Your task to perform on an android device: move a message to another label in the gmail app Image 0: 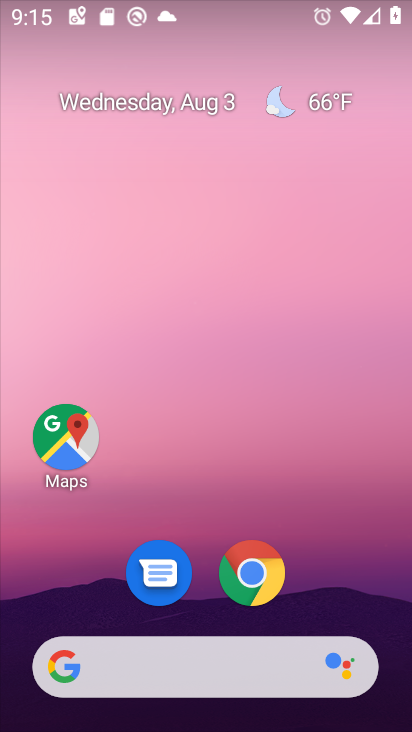
Step 0: drag from (346, 618) to (342, 35)
Your task to perform on an android device: move a message to another label in the gmail app Image 1: 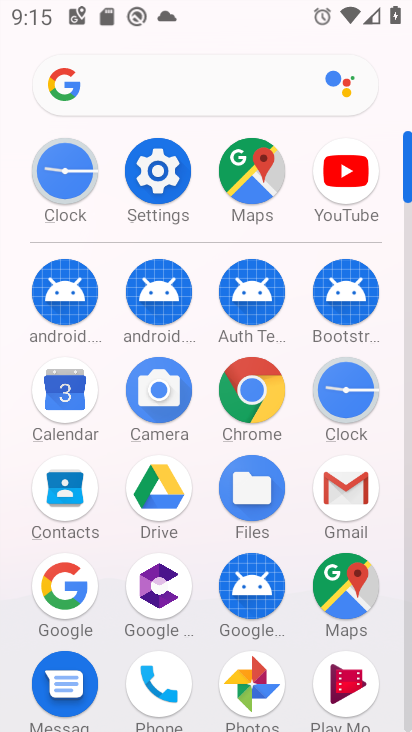
Step 1: click (348, 496)
Your task to perform on an android device: move a message to another label in the gmail app Image 2: 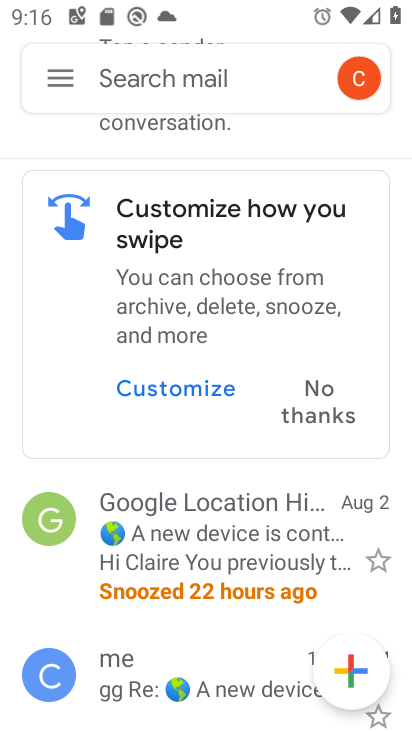
Step 2: drag from (196, 465) to (199, 570)
Your task to perform on an android device: move a message to another label in the gmail app Image 3: 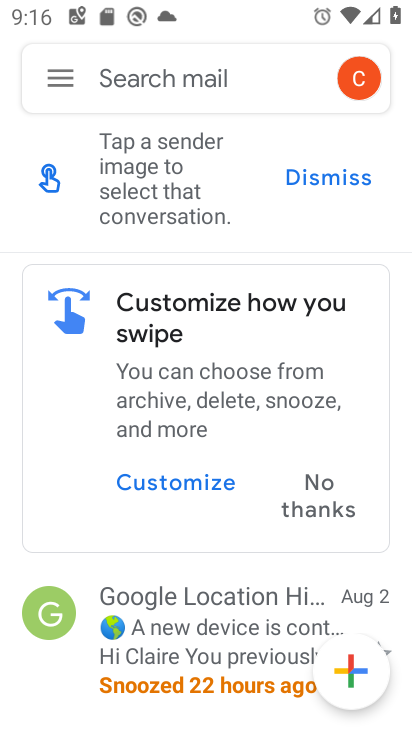
Step 3: drag from (209, 366) to (212, 545)
Your task to perform on an android device: move a message to another label in the gmail app Image 4: 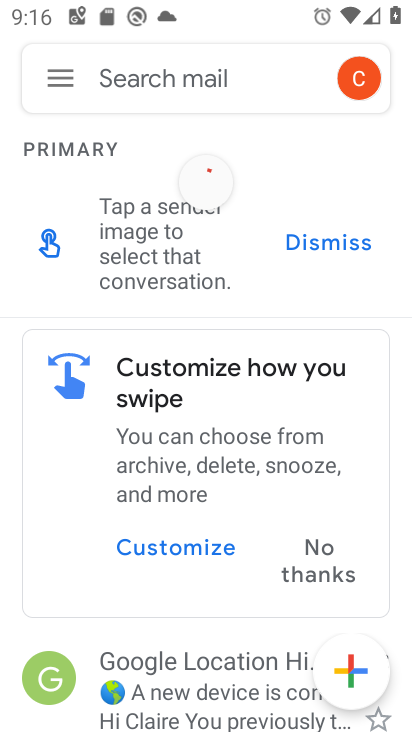
Step 4: drag from (210, 521) to (212, 256)
Your task to perform on an android device: move a message to another label in the gmail app Image 5: 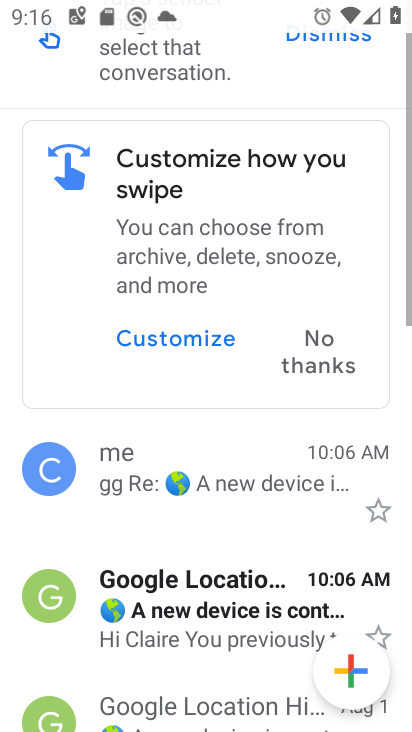
Step 5: drag from (211, 558) to (216, 379)
Your task to perform on an android device: move a message to another label in the gmail app Image 6: 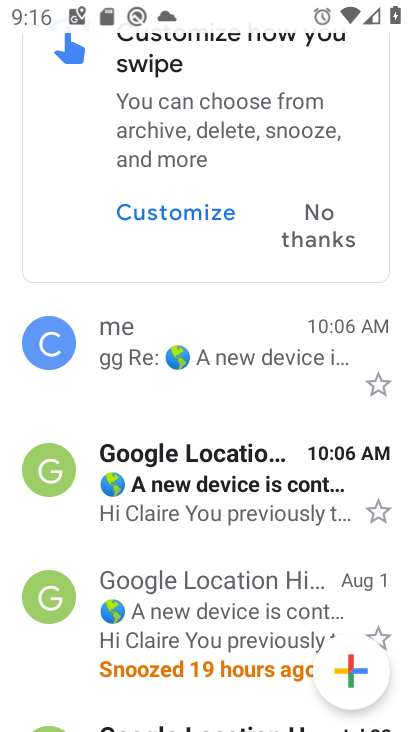
Step 6: click (217, 362)
Your task to perform on an android device: move a message to another label in the gmail app Image 7: 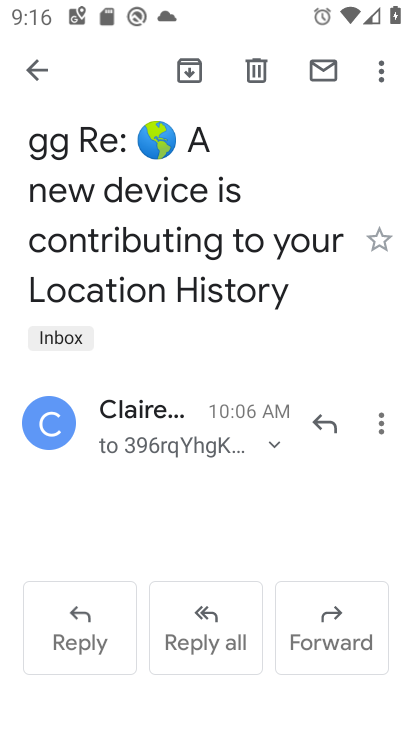
Step 7: click (386, 73)
Your task to perform on an android device: move a message to another label in the gmail app Image 8: 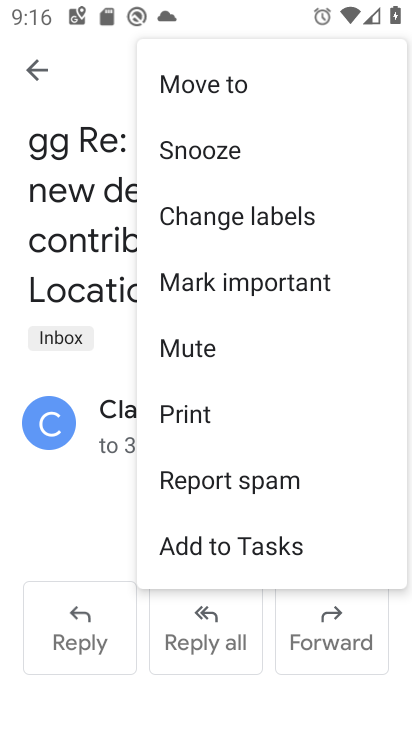
Step 8: click (249, 211)
Your task to perform on an android device: move a message to another label in the gmail app Image 9: 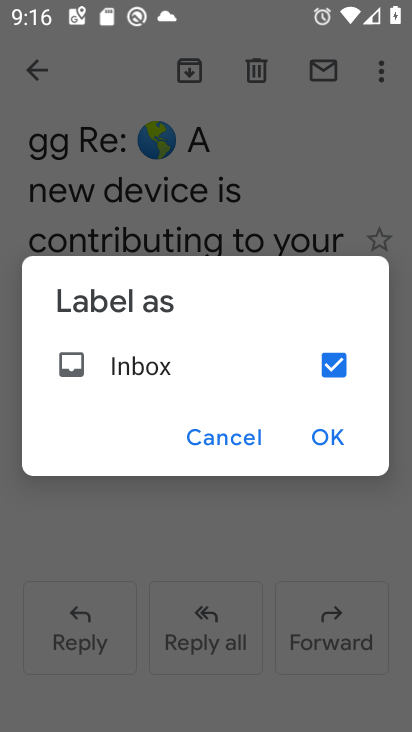
Step 9: click (321, 441)
Your task to perform on an android device: move a message to another label in the gmail app Image 10: 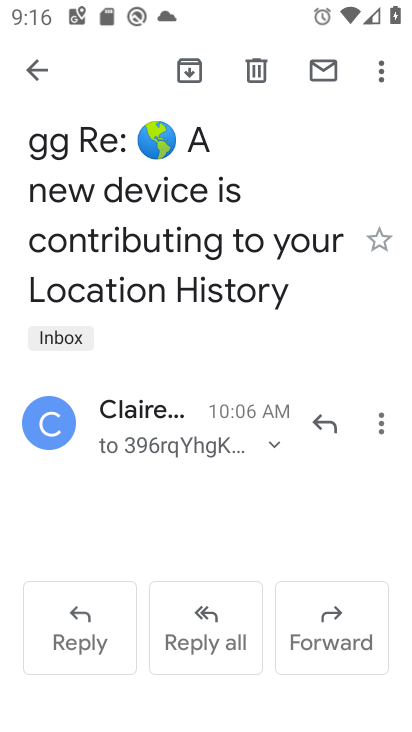
Step 10: task complete